Your task to perform on an android device: turn off data saver in the chrome app Image 0: 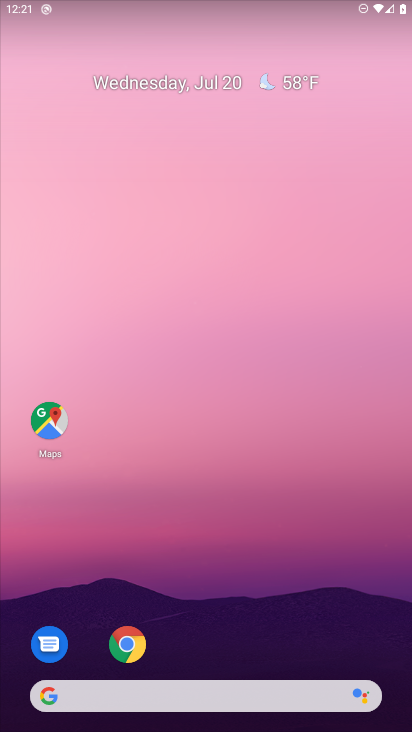
Step 0: click (127, 645)
Your task to perform on an android device: turn off data saver in the chrome app Image 1: 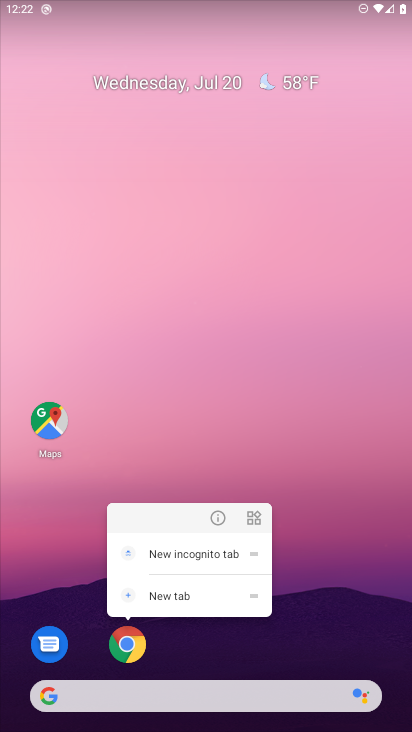
Step 1: click (125, 660)
Your task to perform on an android device: turn off data saver in the chrome app Image 2: 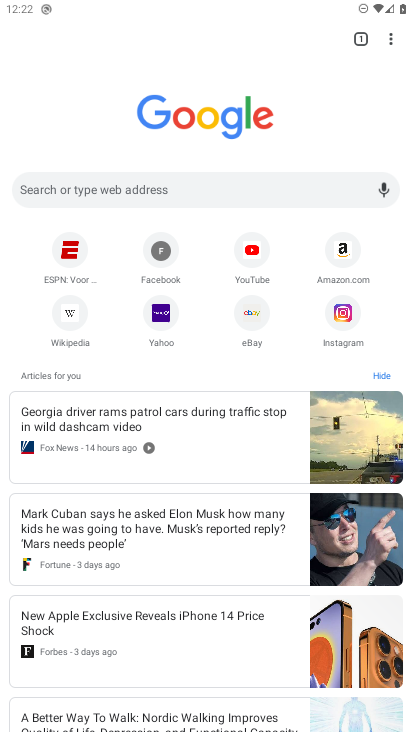
Step 2: click (394, 41)
Your task to perform on an android device: turn off data saver in the chrome app Image 3: 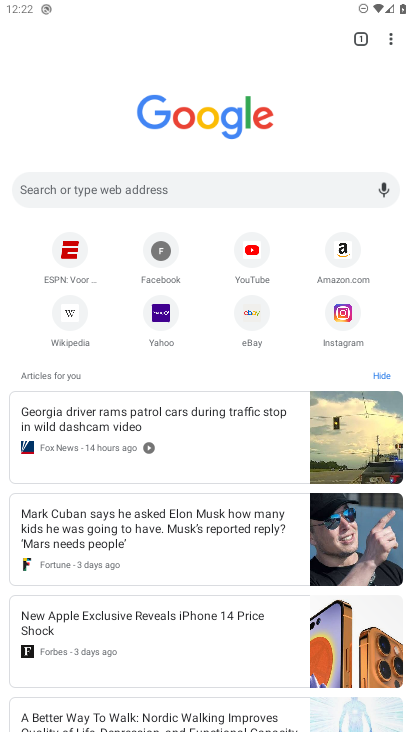
Step 3: task complete